Your task to perform on an android device: all mails in gmail Image 0: 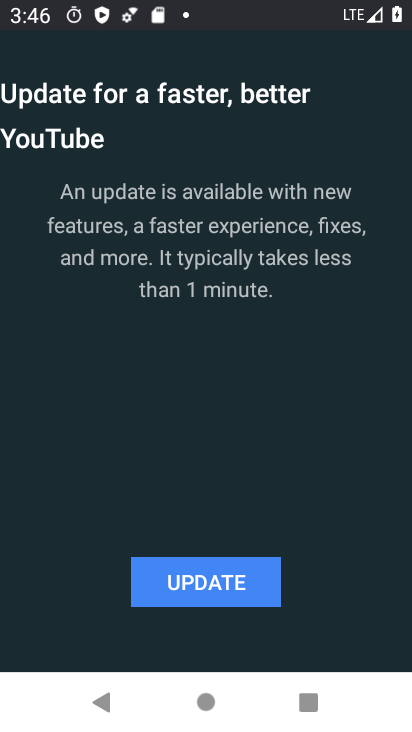
Step 0: press home button
Your task to perform on an android device: all mails in gmail Image 1: 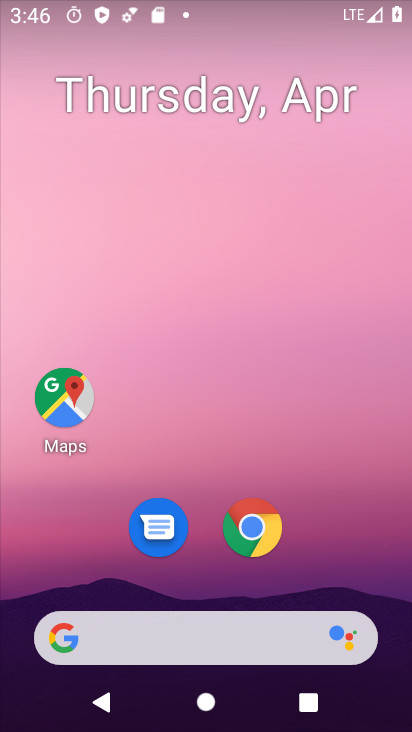
Step 1: drag from (339, 549) to (345, 184)
Your task to perform on an android device: all mails in gmail Image 2: 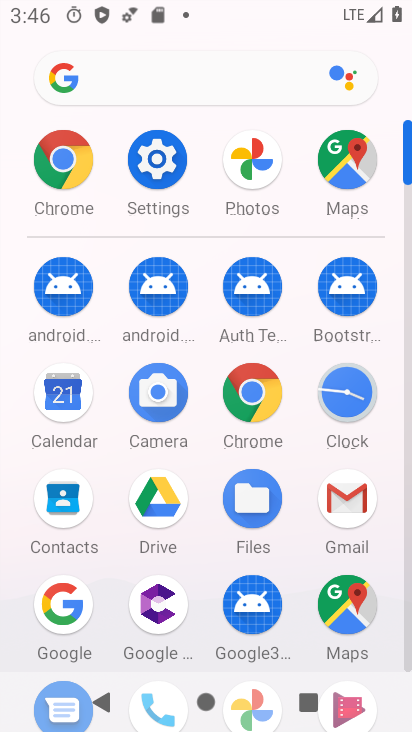
Step 2: click (335, 489)
Your task to perform on an android device: all mails in gmail Image 3: 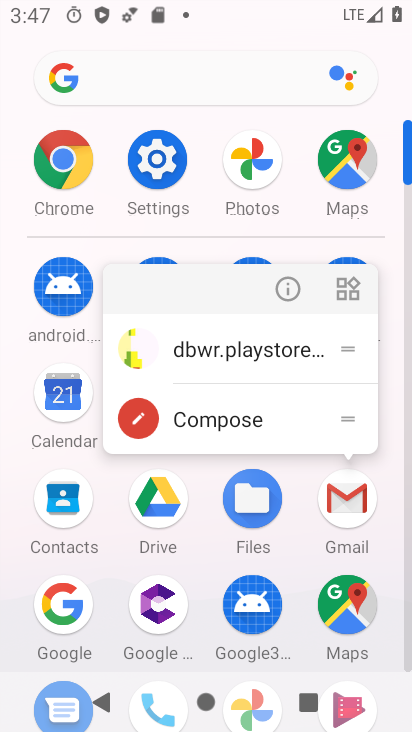
Step 3: click (345, 496)
Your task to perform on an android device: all mails in gmail Image 4: 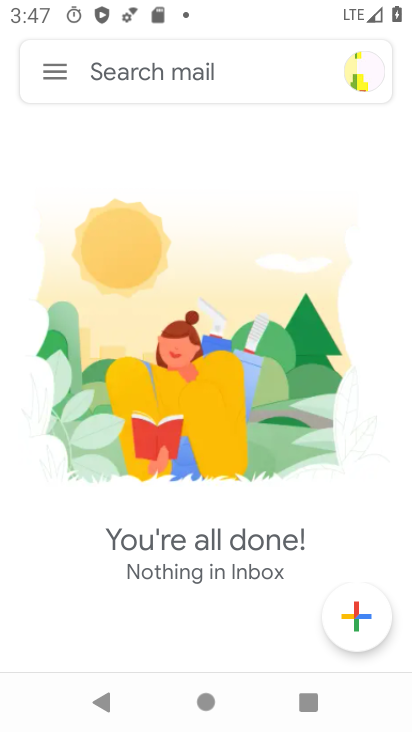
Step 4: click (43, 62)
Your task to perform on an android device: all mails in gmail Image 5: 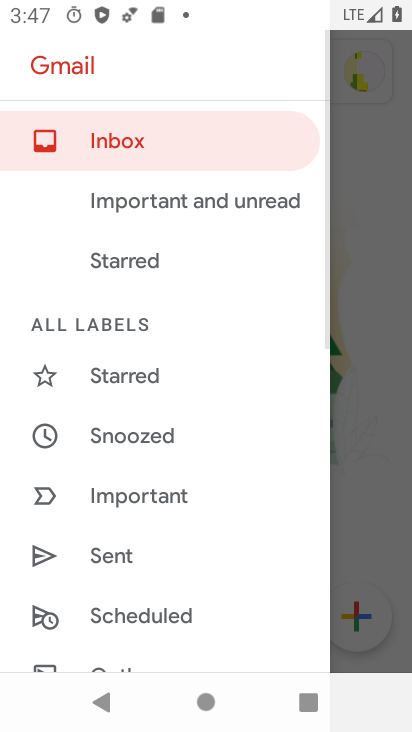
Step 5: drag from (169, 557) to (202, 233)
Your task to perform on an android device: all mails in gmail Image 6: 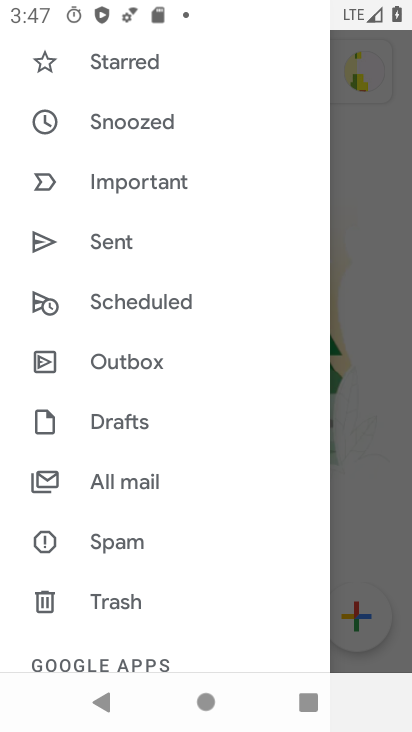
Step 6: click (140, 486)
Your task to perform on an android device: all mails in gmail Image 7: 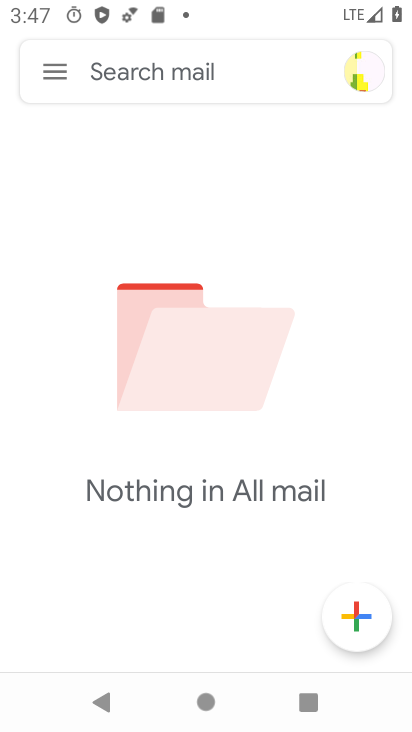
Step 7: task complete